Your task to perform on an android device: change notifications settings Image 0: 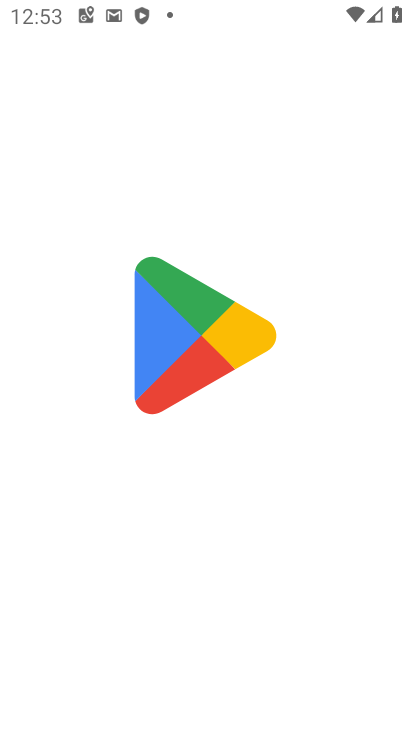
Step 0: press home button
Your task to perform on an android device: change notifications settings Image 1: 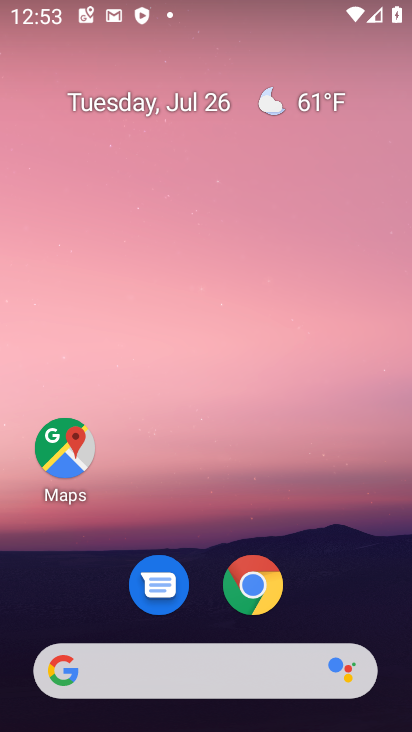
Step 1: drag from (199, 681) to (355, 116)
Your task to perform on an android device: change notifications settings Image 2: 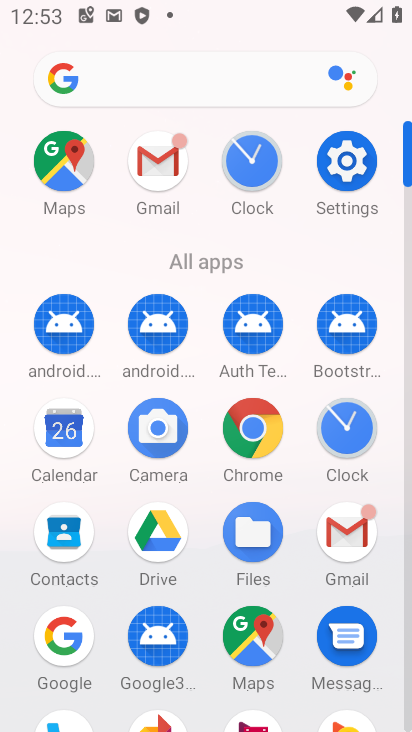
Step 2: click (353, 169)
Your task to perform on an android device: change notifications settings Image 3: 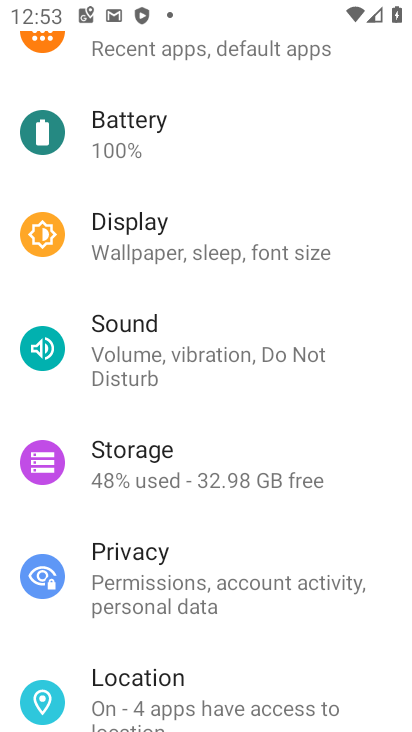
Step 3: drag from (298, 132) to (220, 549)
Your task to perform on an android device: change notifications settings Image 4: 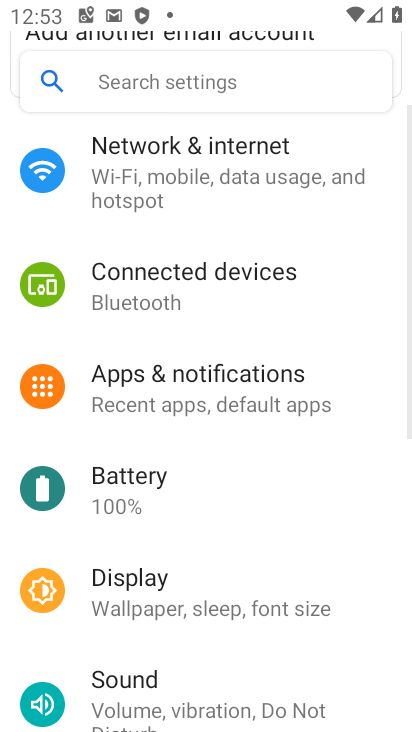
Step 4: click (223, 385)
Your task to perform on an android device: change notifications settings Image 5: 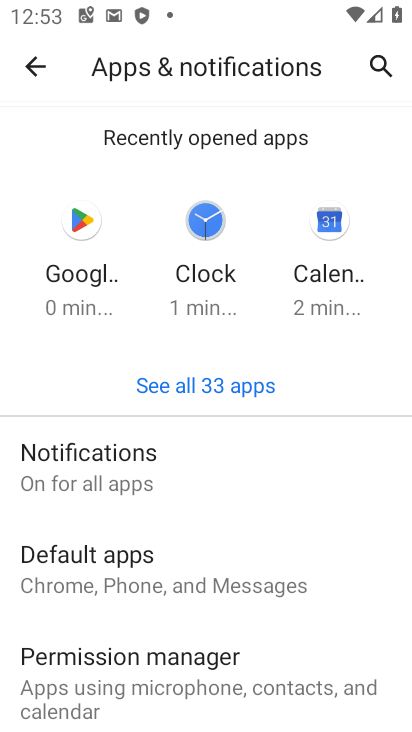
Step 5: click (120, 485)
Your task to perform on an android device: change notifications settings Image 6: 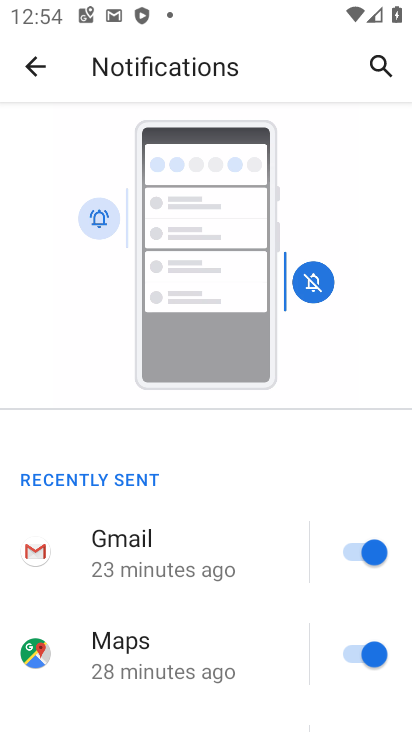
Step 6: task complete